Your task to perform on an android device: Go to CNN.com Image 0: 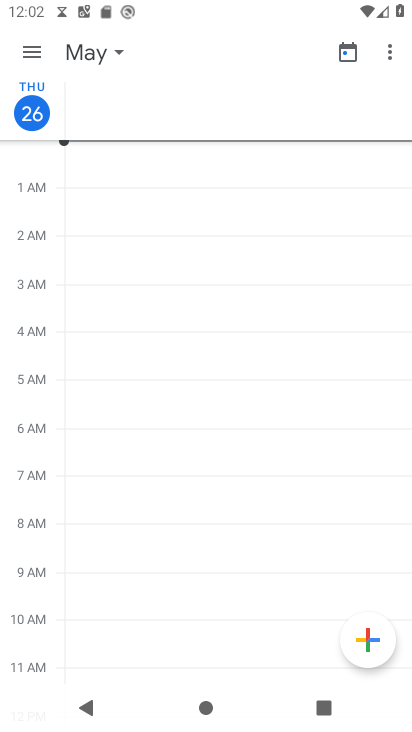
Step 0: press home button
Your task to perform on an android device: Go to CNN.com Image 1: 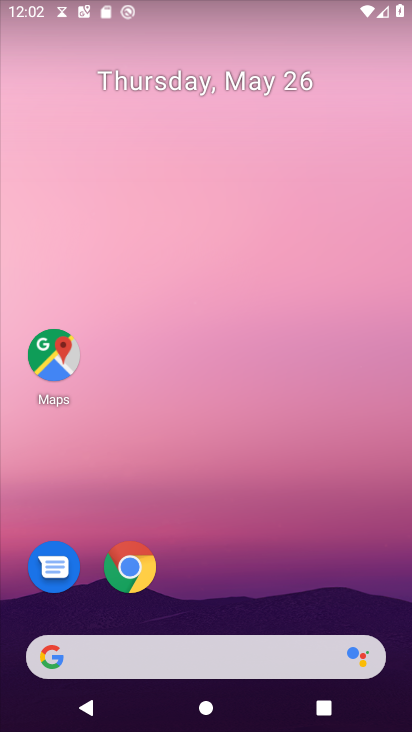
Step 1: click (132, 583)
Your task to perform on an android device: Go to CNN.com Image 2: 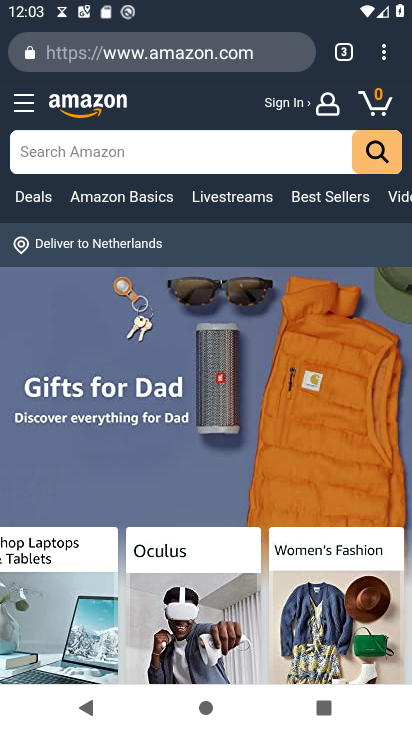
Step 2: click (342, 44)
Your task to perform on an android device: Go to CNN.com Image 3: 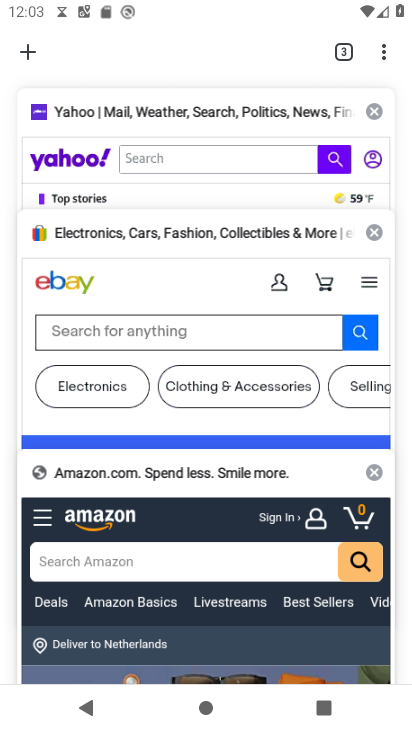
Step 3: click (18, 53)
Your task to perform on an android device: Go to CNN.com Image 4: 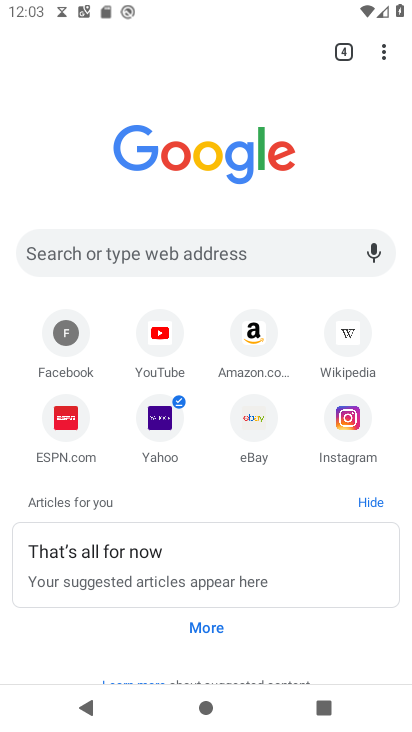
Step 4: click (162, 259)
Your task to perform on an android device: Go to CNN.com Image 5: 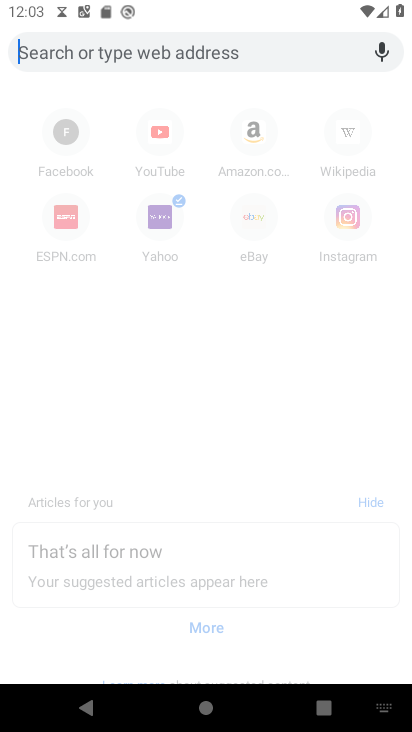
Step 5: type "CNN.com"
Your task to perform on an android device: Go to CNN.com Image 6: 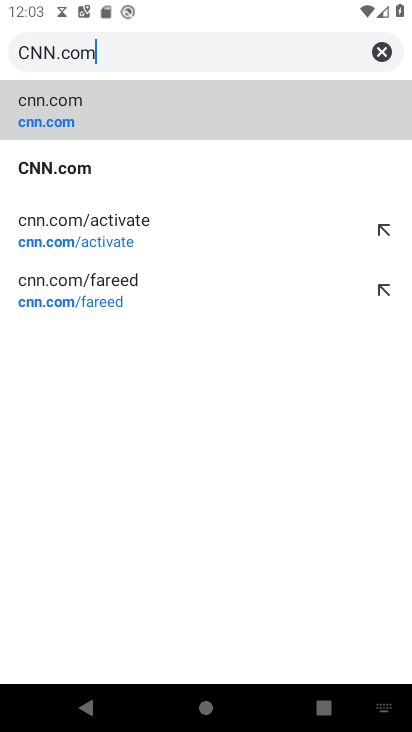
Step 6: click (134, 88)
Your task to perform on an android device: Go to CNN.com Image 7: 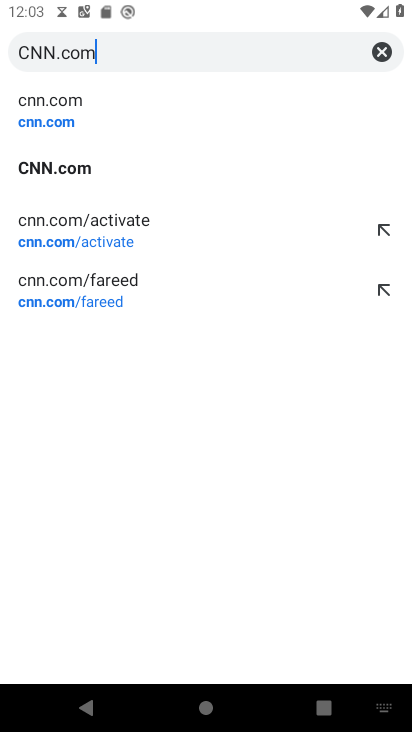
Step 7: click (134, 88)
Your task to perform on an android device: Go to CNN.com Image 8: 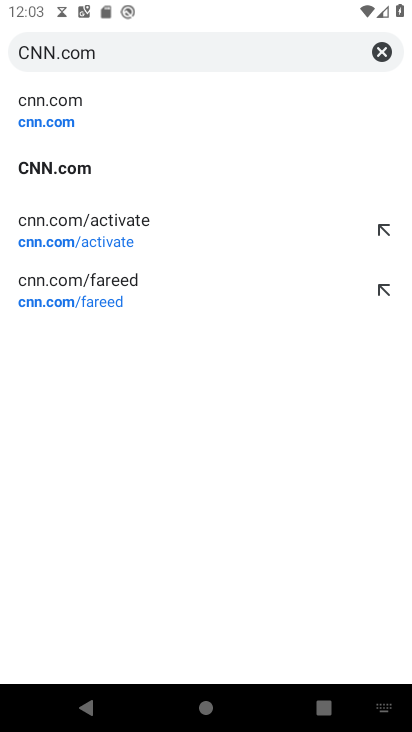
Step 8: click (134, 88)
Your task to perform on an android device: Go to CNN.com Image 9: 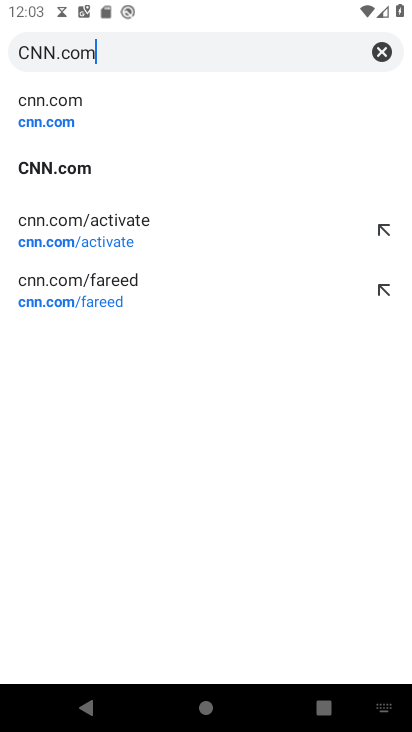
Step 9: click (131, 90)
Your task to perform on an android device: Go to CNN.com Image 10: 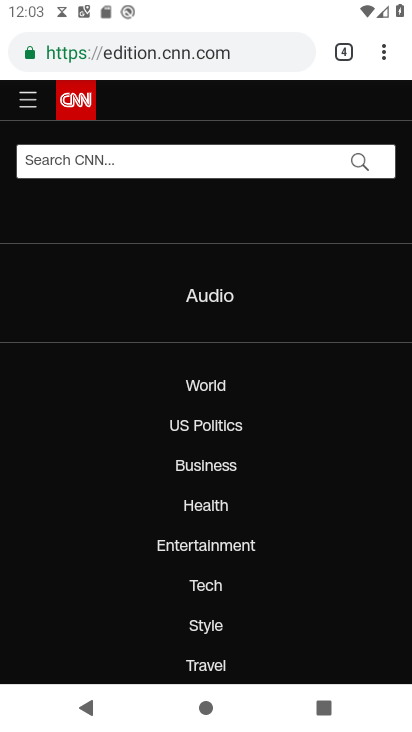
Step 10: task complete